Your task to perform on an android device: uninstall "Cash App" Image 0: 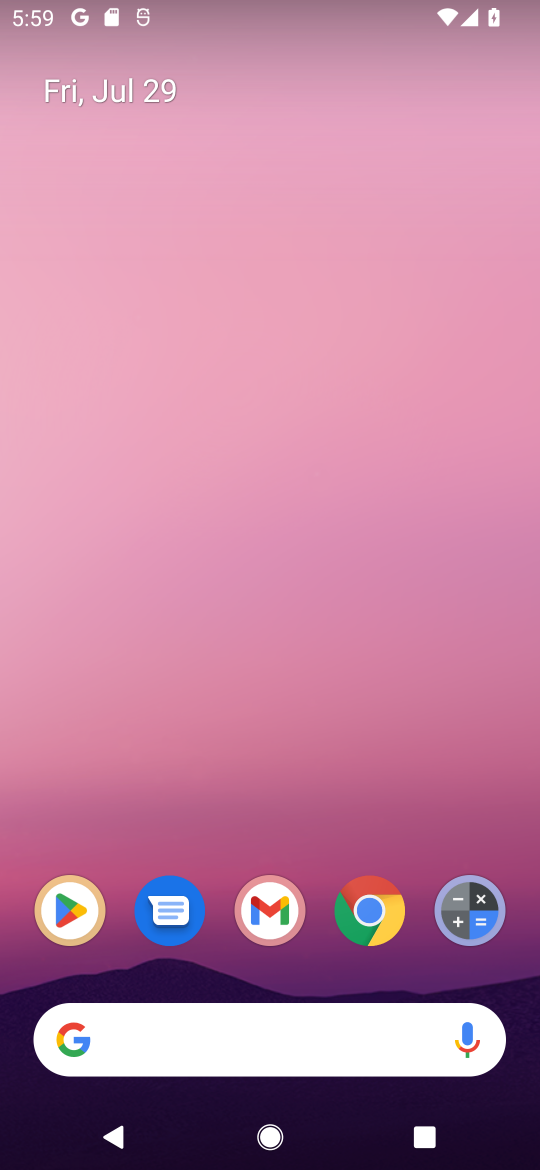
Step 0: click (85, 930)
Your task to perform on an android device: uninstall "Cash App" Image 1: 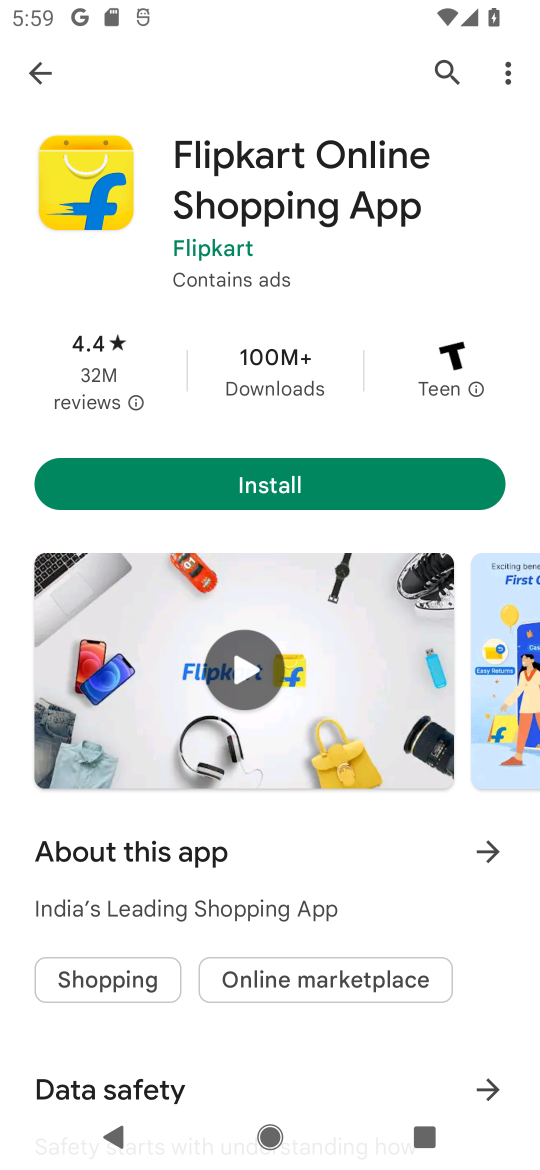
Step 1: click (439, 81)
Your task to perform on an android device: uninstall "Cash App" Image 2: 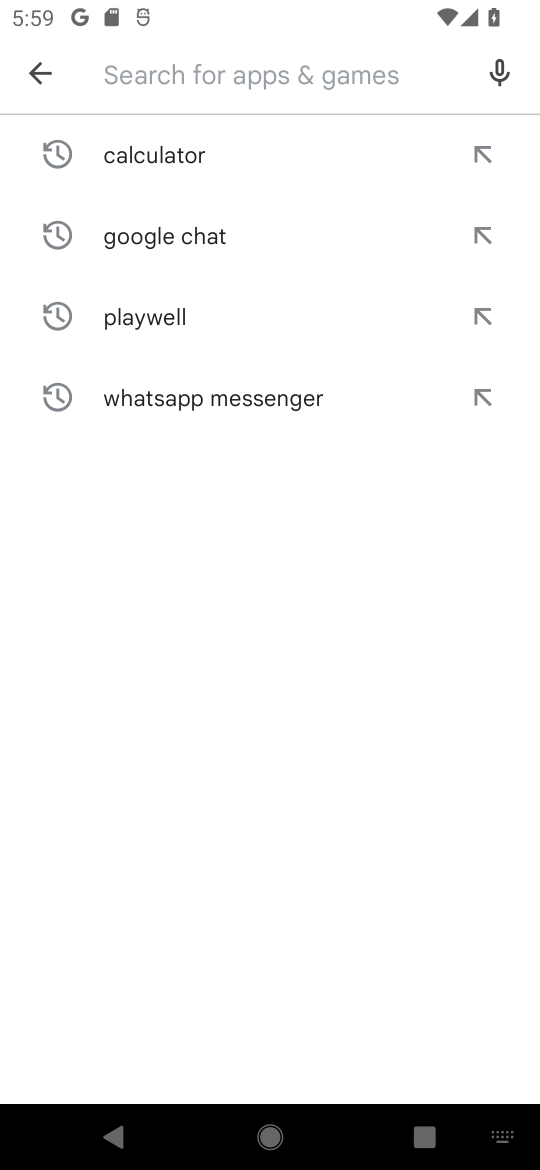
Step 2: click (439, 81)
Your task to perform on an android device: uninstall "Cash App" Image 3: 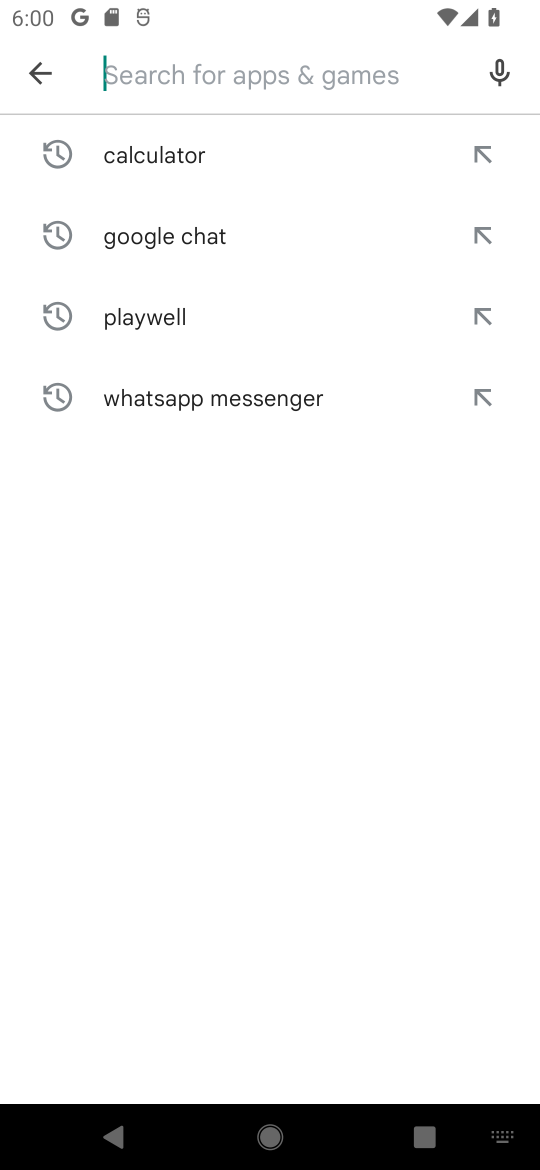
Step 3: type "cash app"
Your task to perform on an android device: uninstall "Cash App" Image 4: 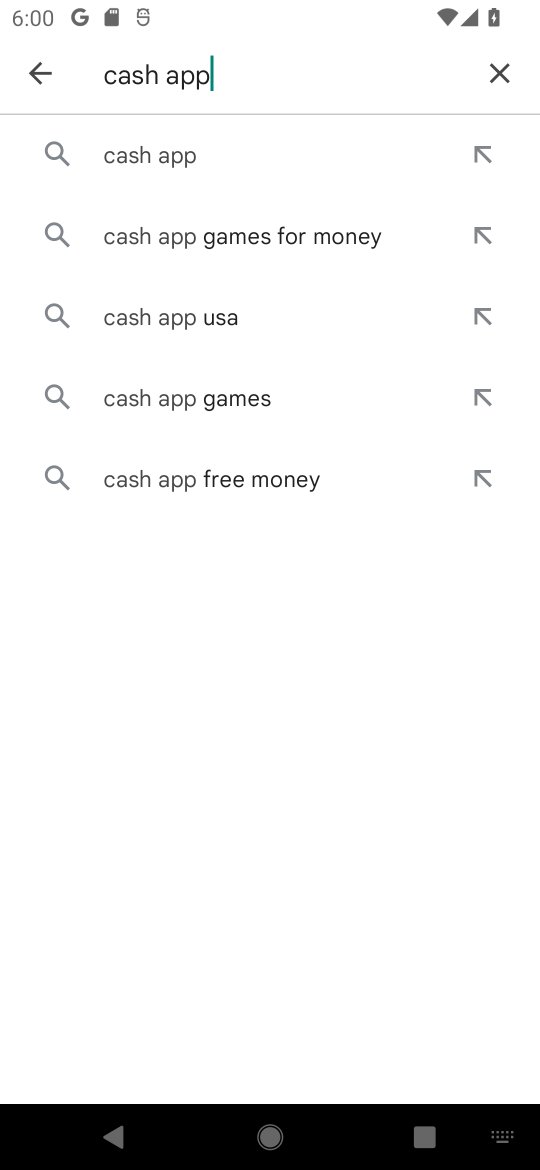
Step 4: click (228, 151)
Your task to perform on an android device: uninstall "Cash App" Image 5: 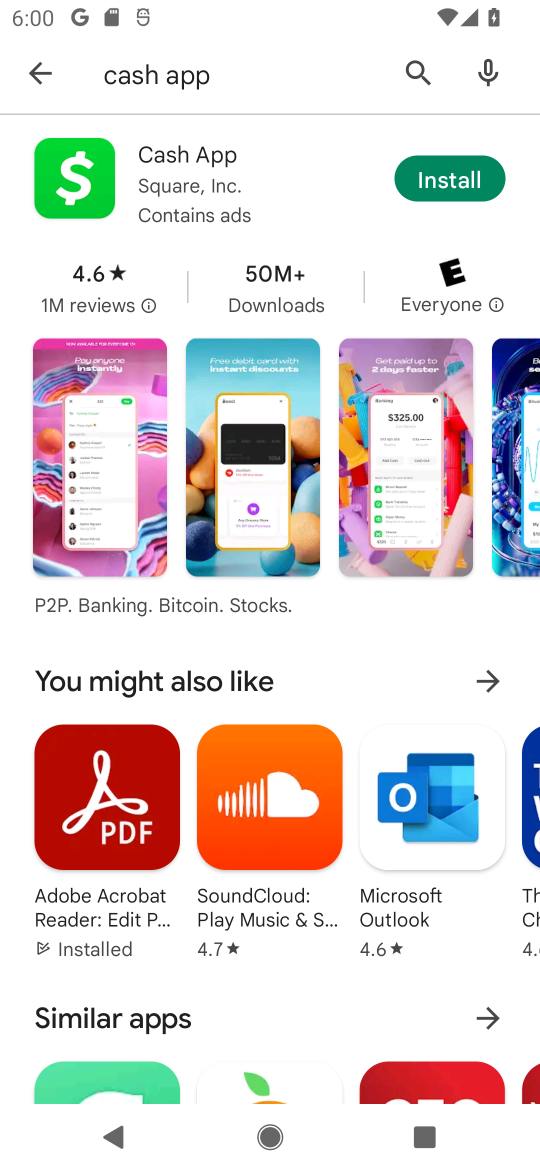
Step 5: click (201, 152)
Your task to perform on an android device: uninstall "Cash App" Image 6: 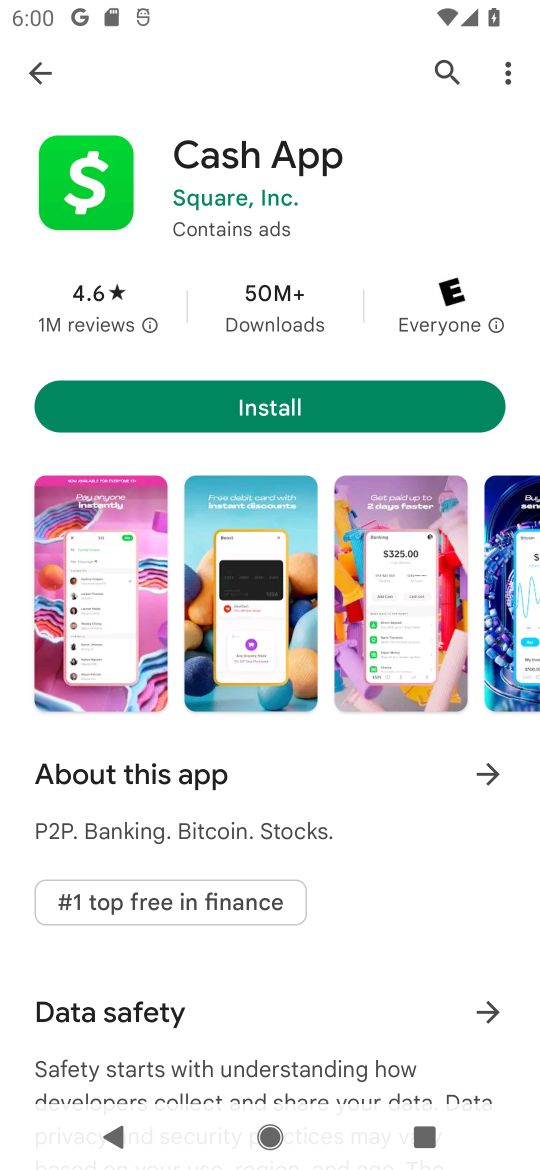
Step 6: task complete